Your task to perform on an android device: Open location settings Image 0: 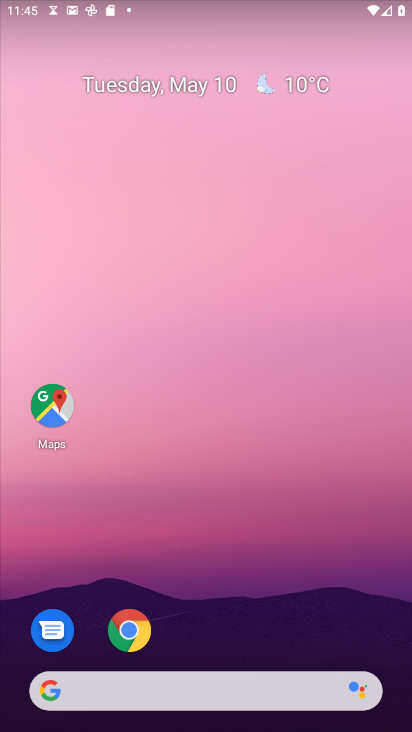
Step 0: drag from (273, 501) to (273, 118)
Your task to perform on an android device: Open location settings Image 1: 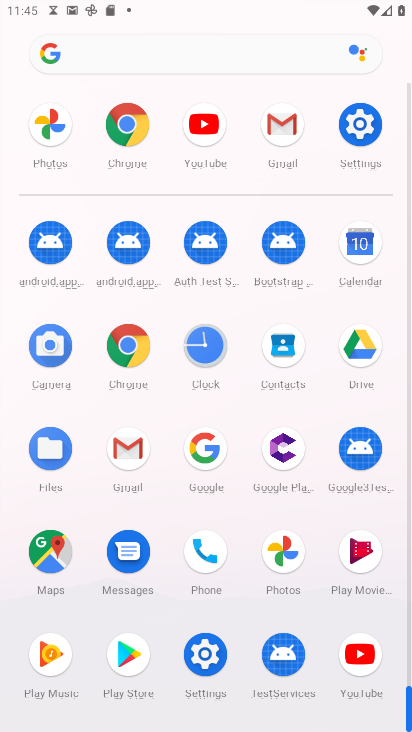
Step 1: click (353, 126)
Your task to perform on an android device: Open location settings Image 2: 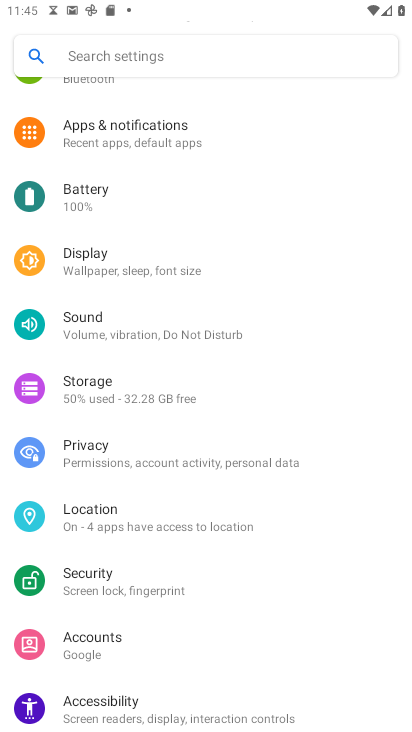
Step 2: click (115, 513)
Your task to perform on an android device: Open location settings Image 3: 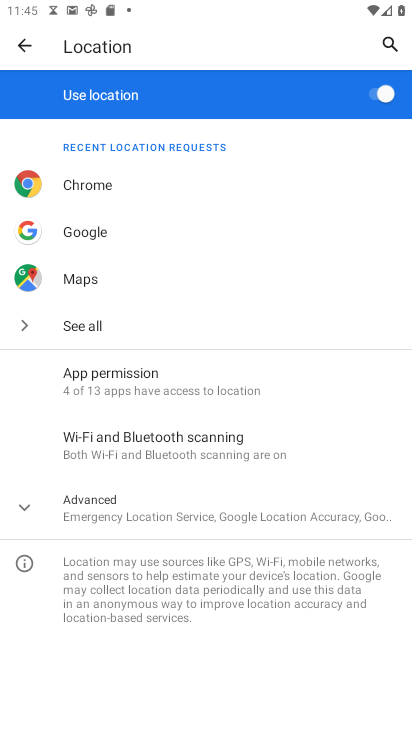
Step 3: task complete